Your task to perform on an android device: Open accessibility settings Image 0: 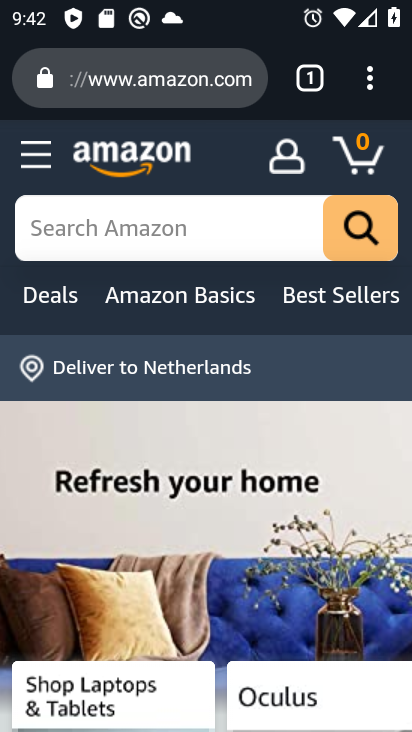
Step 0: press home button
Your task to perform on an android device: Open accessibility settings Image 1: 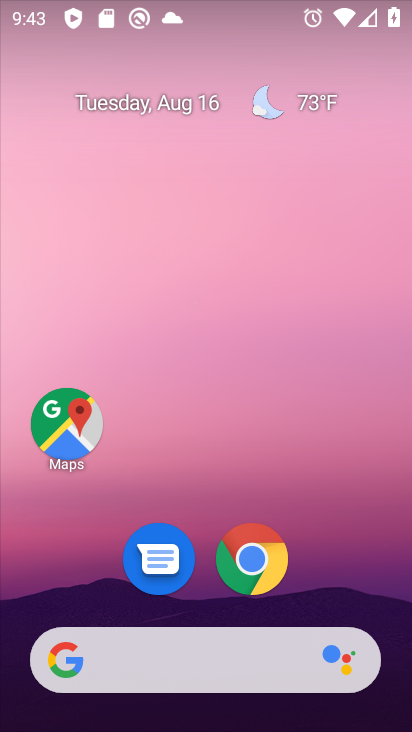
Step 1: drag from (185, 690) to (256, 63)
Your task to perform on an android device: Open accessibility settings Image 2: 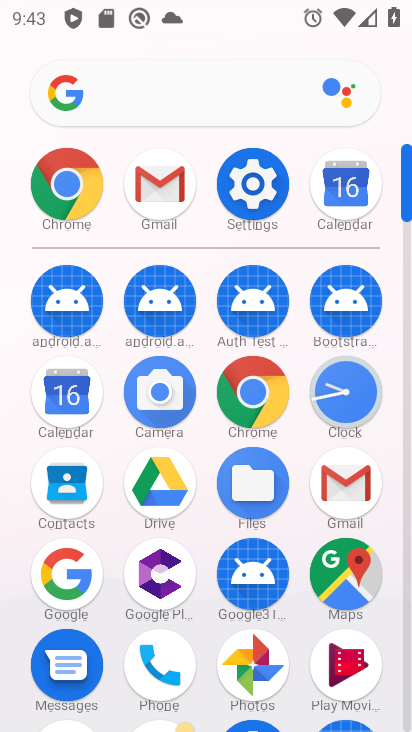
Step 2: click (250, 185)
Your task to perform on an android device: Open accessibility settings Image 3: 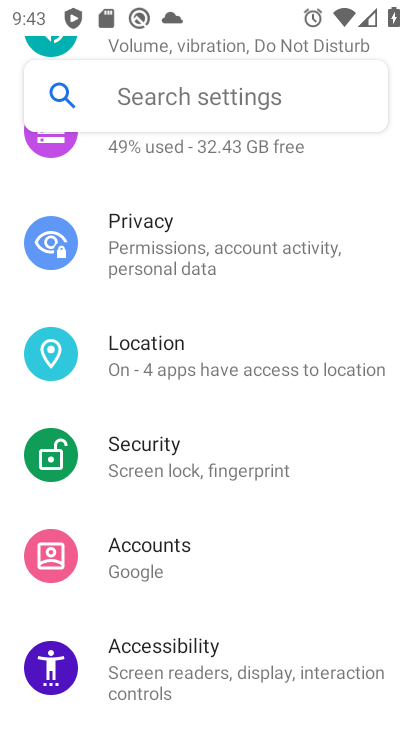
Step 3: click (157, 644)
Your task to perform on an android device: Open accessibility settings Image 4: 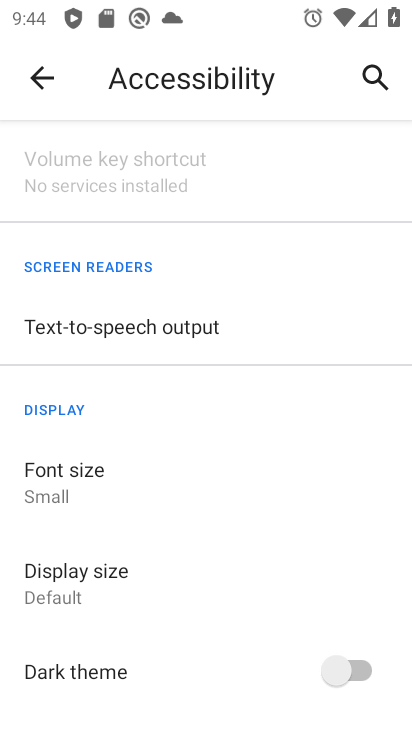
Step 4: task complete